Your task to perform on an android device: Search for vegetarian restaurants on Maps Image 0: 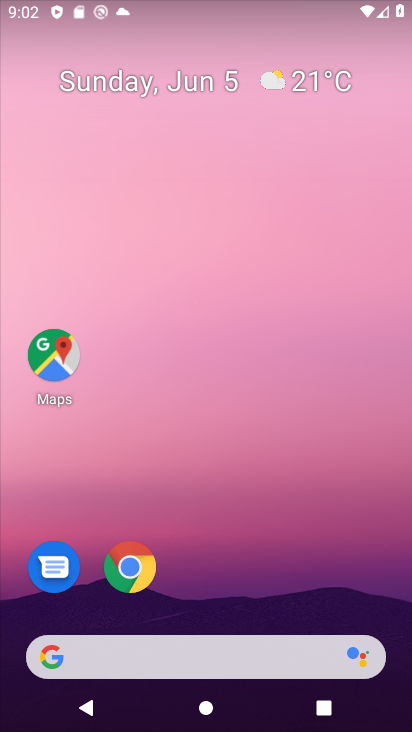
Step 0: click (53, 356)
Your task to perform on an android device: Search for vegetarian restaurants on Maps Image 1: 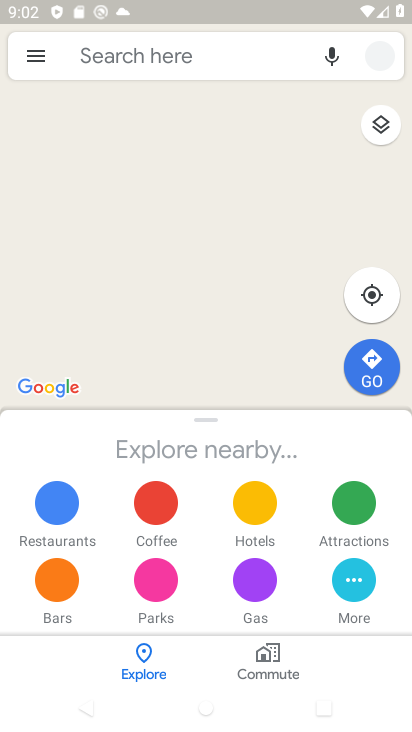
Step 1: click (121, 57)
Your task to perform on an android device: Search for vegetarian restaurants on Maps Image 2: 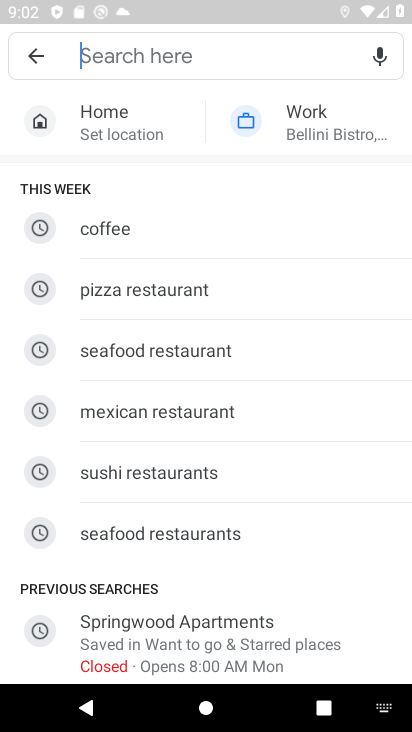
Step 2: drag from (203, 619) to (230, 274)
Your task to perform on an android device: Search for vegetarian restaurants on Maps Image 3: 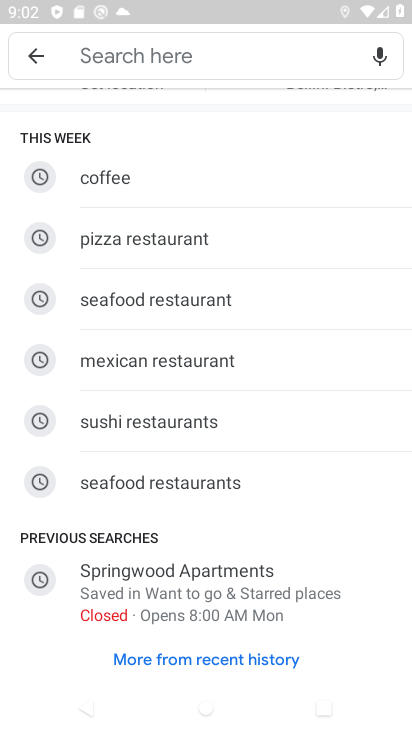
Step 3: click (213, 656)
Your task to perform on an android device: Search for vegetarian restaurants on Maps Image 4: 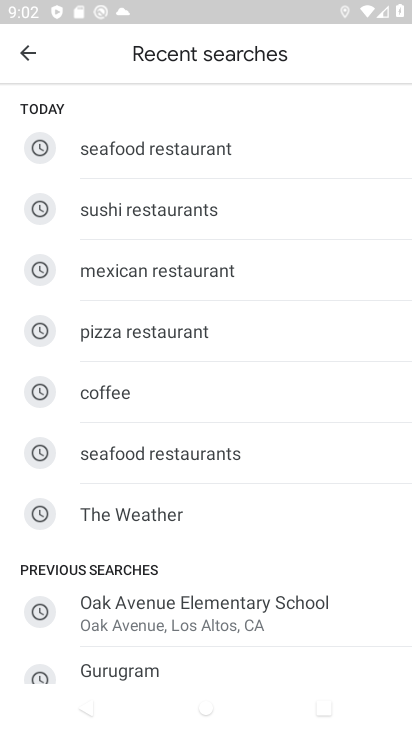
Step 4: drag from (188, 678) to (197, 300)
Your task to perform on an android device: Search for vegetarian restaurants on Maps Image 5: 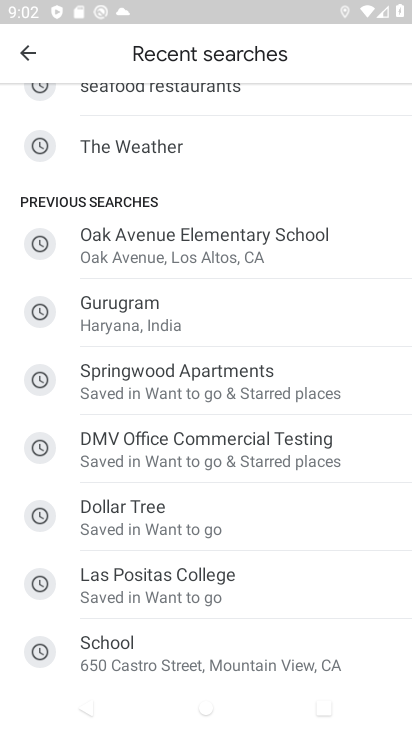
Step 5: drag from (210, 429) to (213, 304)
Your task to perform on an android device: Search for vegetarian restaurants on Maps Image 6: 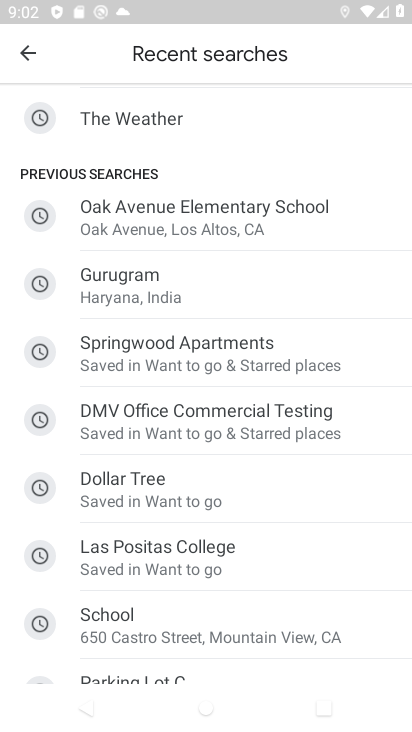
Step 6: drag from (190, 661) to (186, 272)
Your task to perform on an android device: Search for vegetarian restaurants on Maps Image 7: 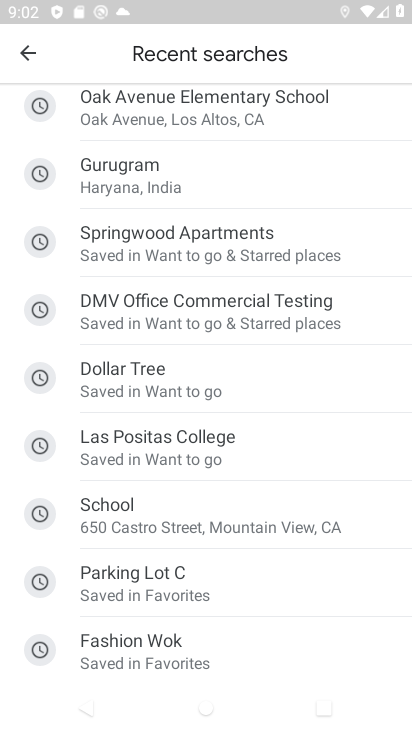
Step 7: click (26, 46)
Your task to perform on an android device: Search for vegetarian restaurants on Maps Image 8: 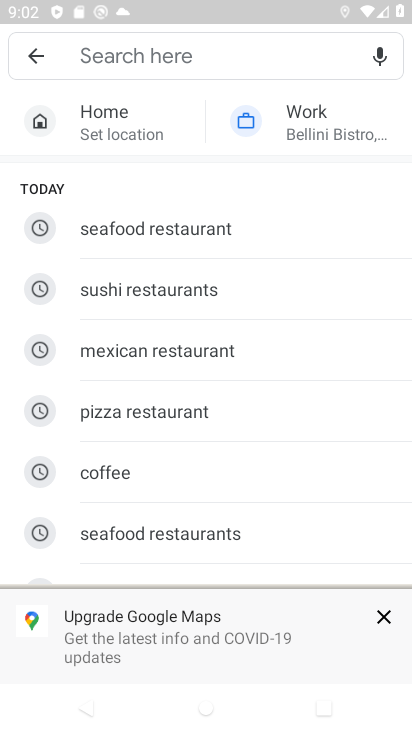
Step 8: click (116, 58)
Your task to perform on an android device: Search for vegetarian restaurants on Maps Image 9: 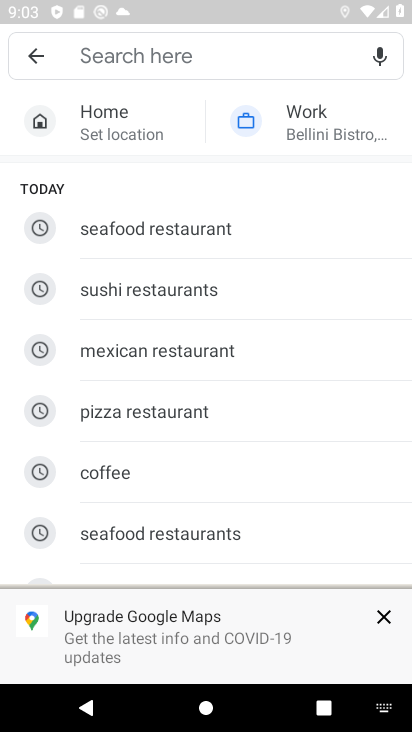
Step 9: type "vegetarian"
Your task to perform on an android device: Search for vegetarian restaurants on Maps Image 10: 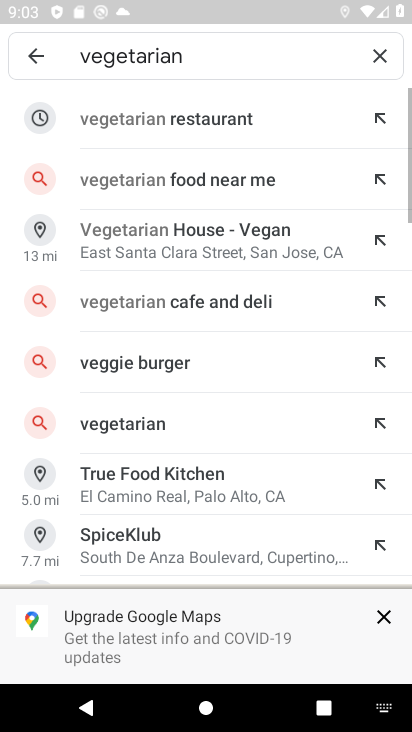
Step 10: click (206, 121)
Your task to perform on an android device: Search for vegetarian restaurants on Maps Image 11: 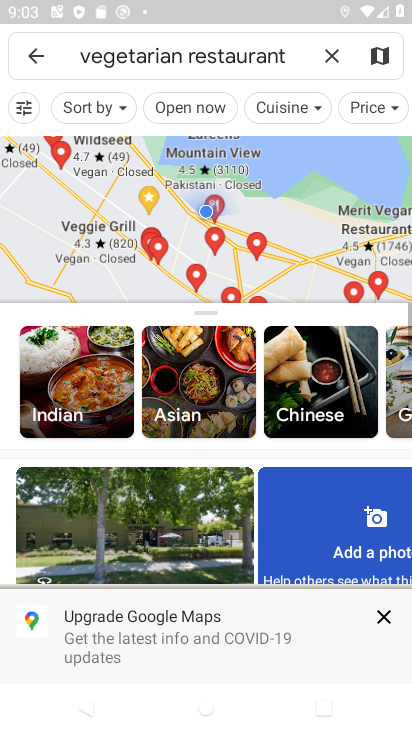
Step 11: task complete